Your task to perform on an android device: open app "Chime – Mobile Banking" (install if not already installed) Image 0: 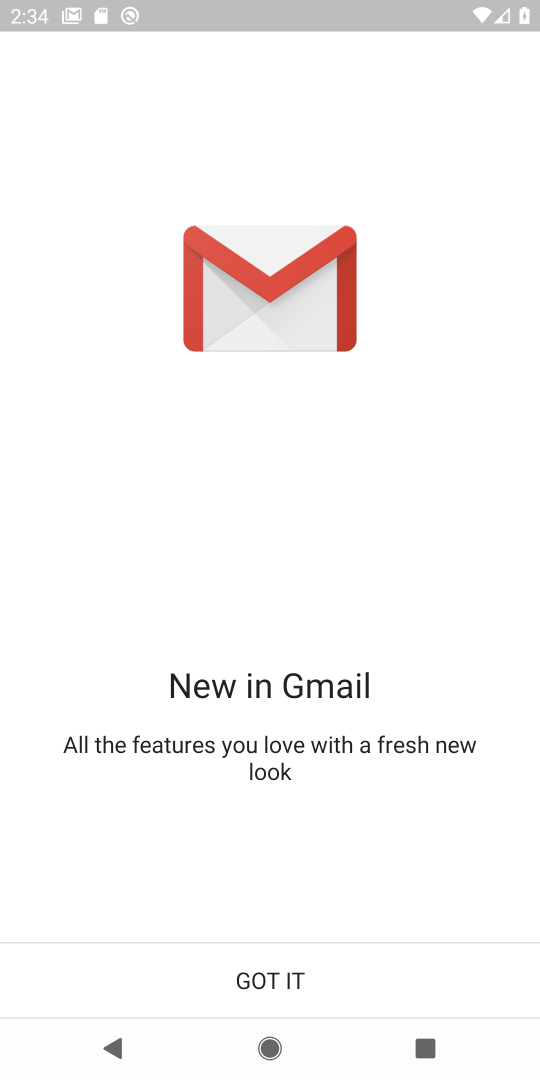
Step 0: press home button
Your task to perform on an android device: open app "Chime – Mobile Banking" (install if not already installed) Image 1: 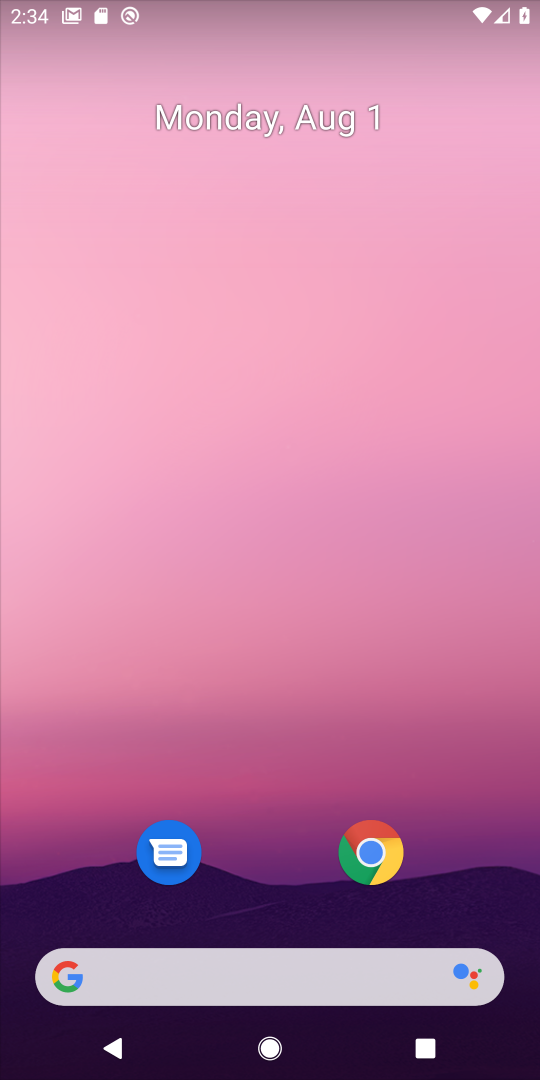
Step 1: drag from (261, 886) to (276, 3)
Your task to perform on an android device: open app "Chime – Mobile Banking" (install if not already installed) Image 2: 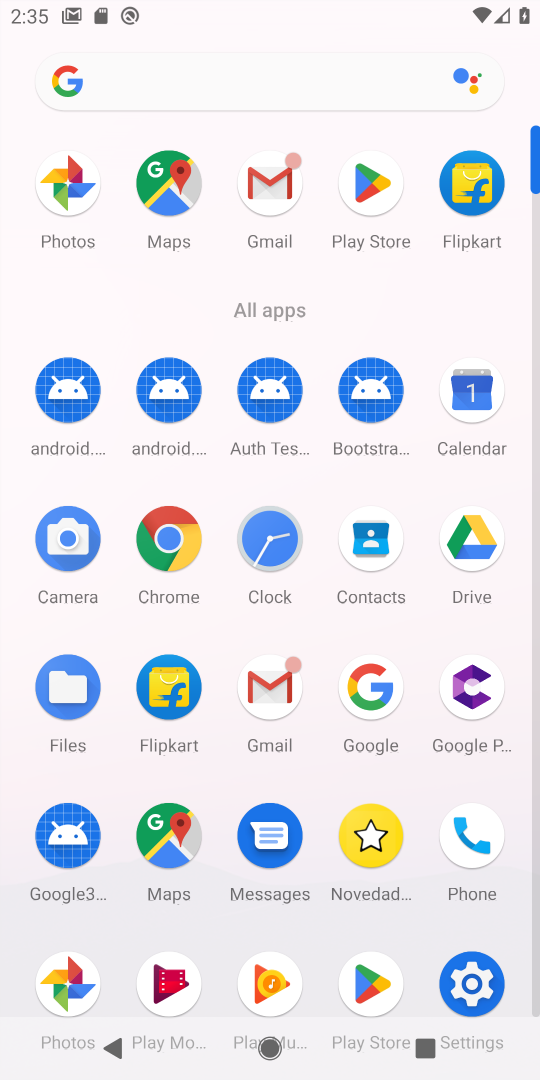
Step 2: click (361, 328)
Your task to perform on an android device: open app "Chime – Mobile Banking" (install if not already installed) Image 3: 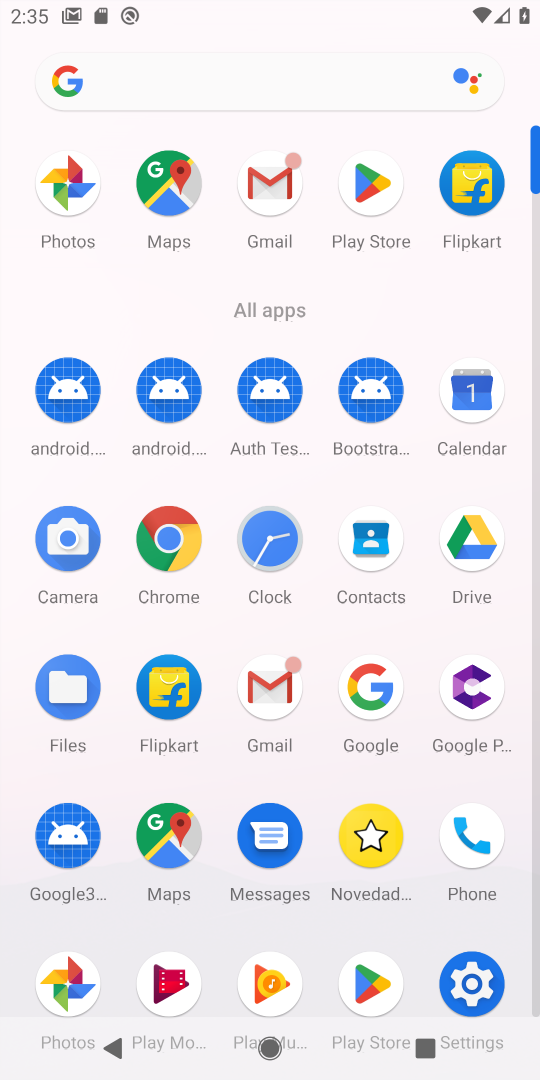
Step 3: click (361, 213)
Your task to perform on an android device: open app "Chime – Mobile Banking" (install if not already installed) Image 4: 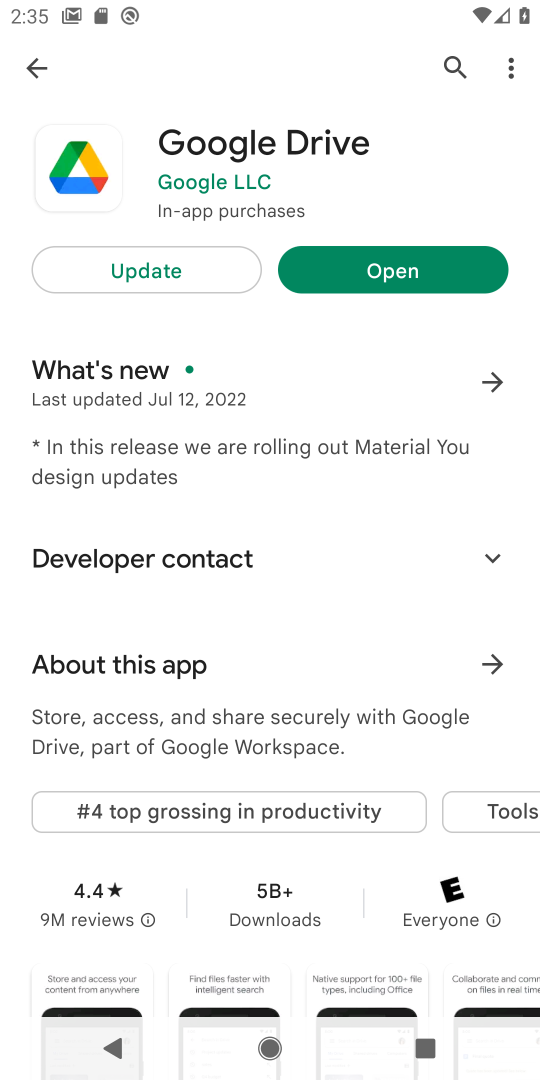
Step 4: click (452, 75)
Your task to perform on an android device: open app "Chime – Mobile Banking" (install if not already installed) Image 5: 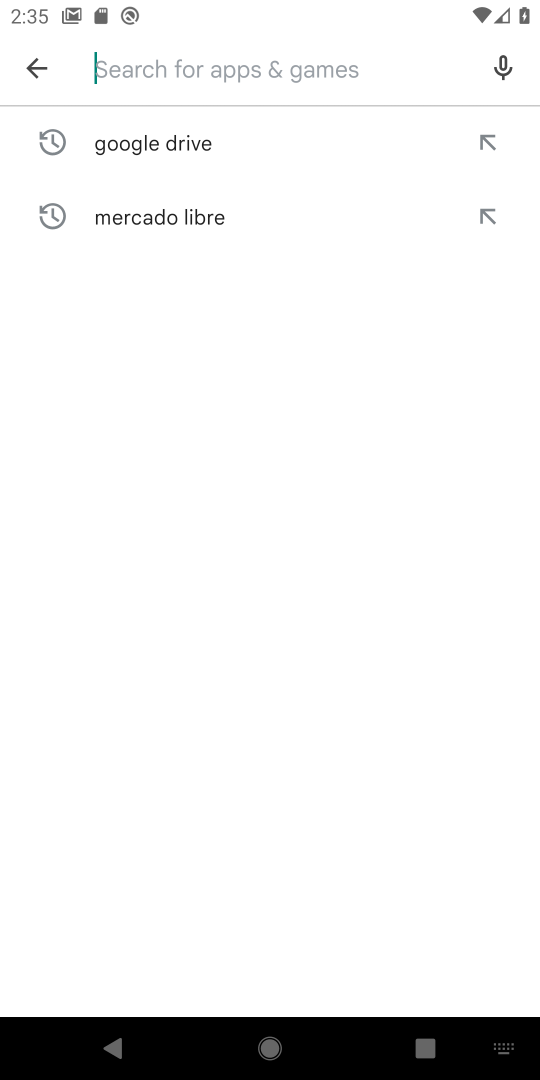
Step 5: type "chime - mobile banking"
Your task to perform on an android device: open app "Chime – Mobile Banking" (install if not already installed) Image 6: 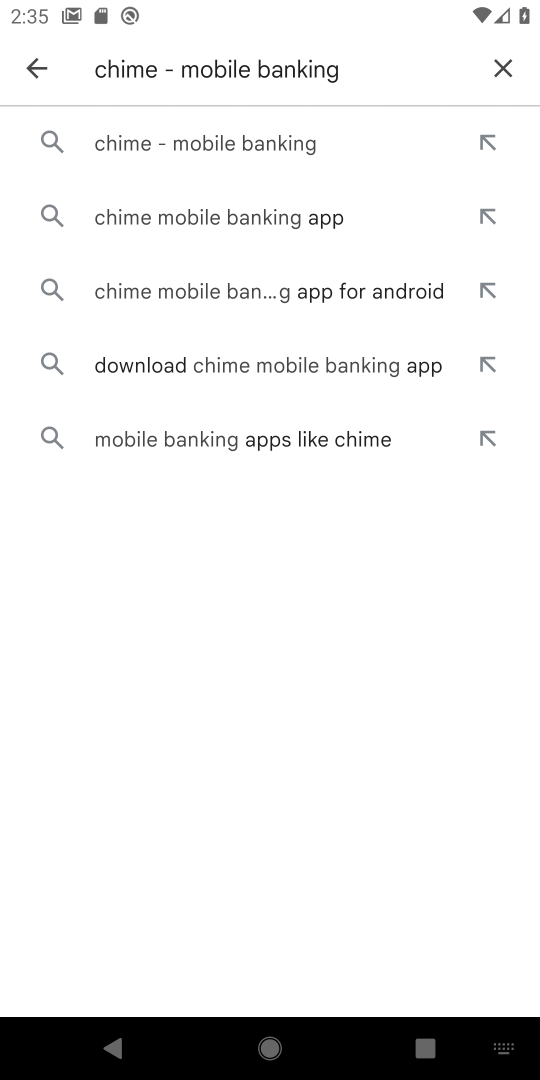
Step 6: click (328, 148)
Your task to perform on an android device: open app "Chime – Mobile Banking" (install if not already installed) Image 7: 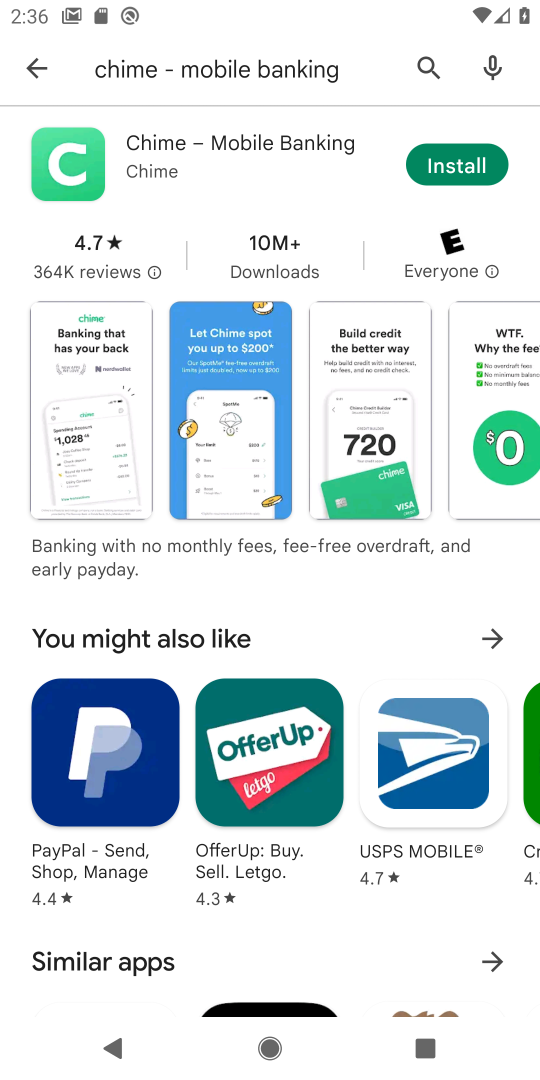
Step 7: click (260, 131)
Your task to perform on an android device: open app "Chime – Mobile Banking" (install if not already installed) Image 8: 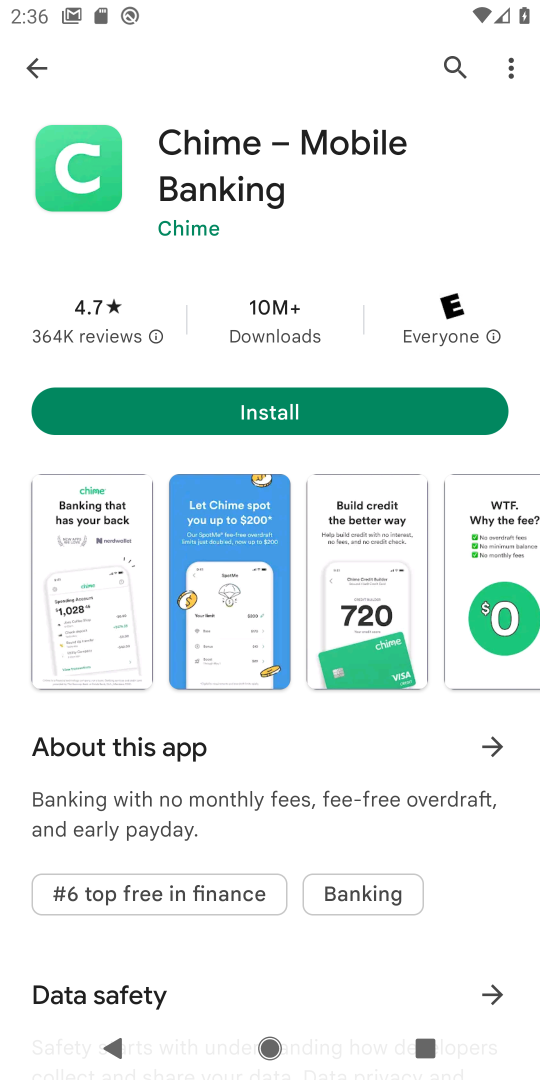
Step 8: click (314, 413)
Your task to perform on an android device: open app "Chime – Mobile Banking" (install if not already installed) Image 9: 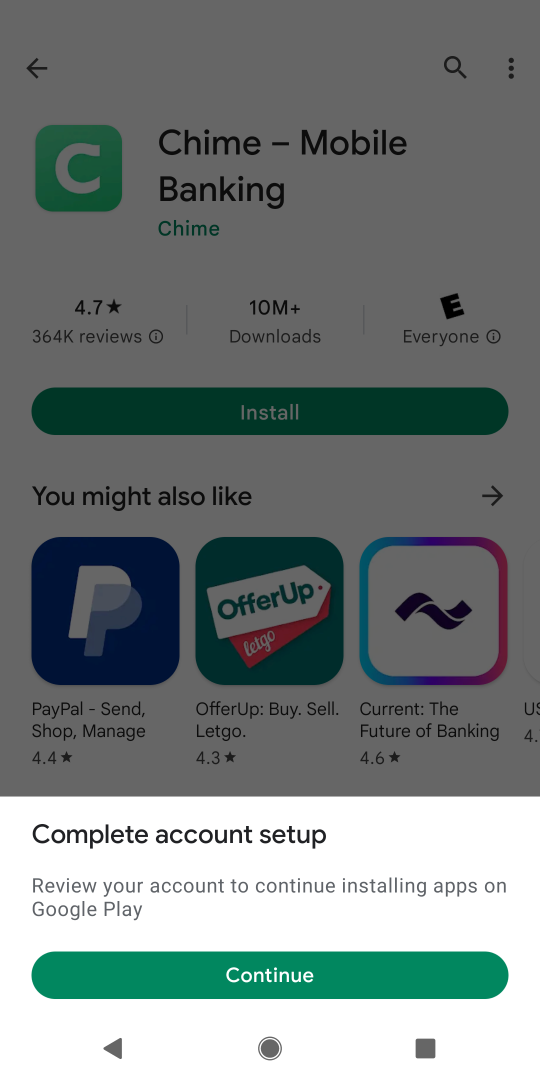
Step 9: click (296, 959)
Your task to perform on an android device: open app "Chime – Mobile Banking" (install if not already installed) Image 10: 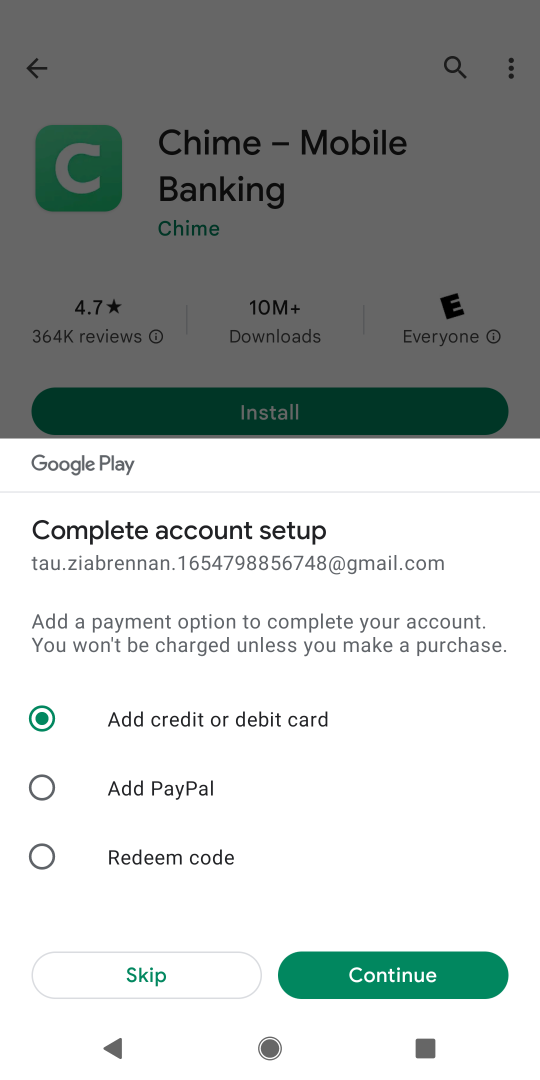
Step 10: click (139, 968)
Your task to perform on an android device: open app "Chime – Mobile Banking" (install if not already installed) Image 11: 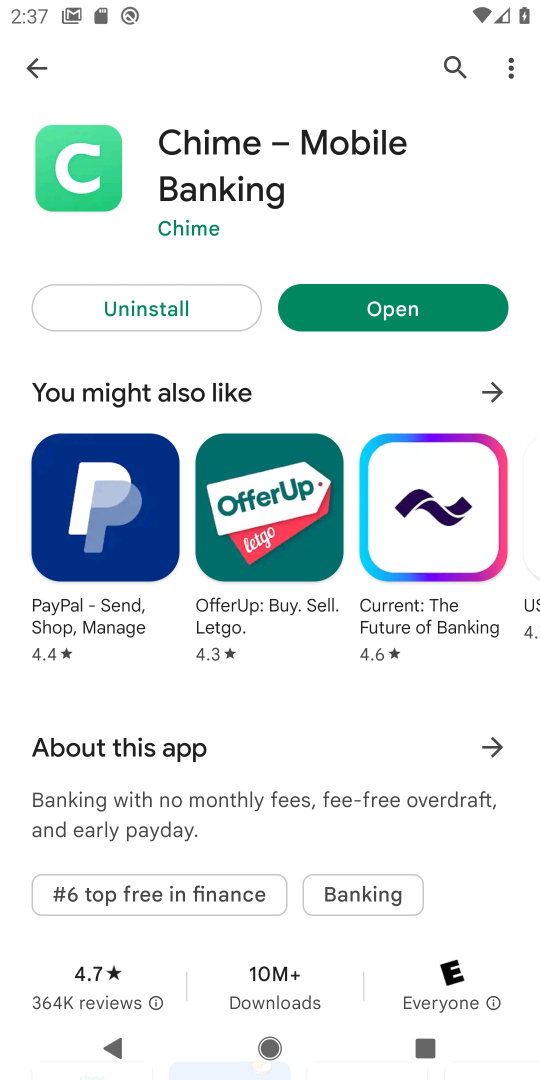
Step 11: click (410, 301)
Your task to perform on an android device: open app "Chime – Mobile Banking" (install if not already installed) Image 12: 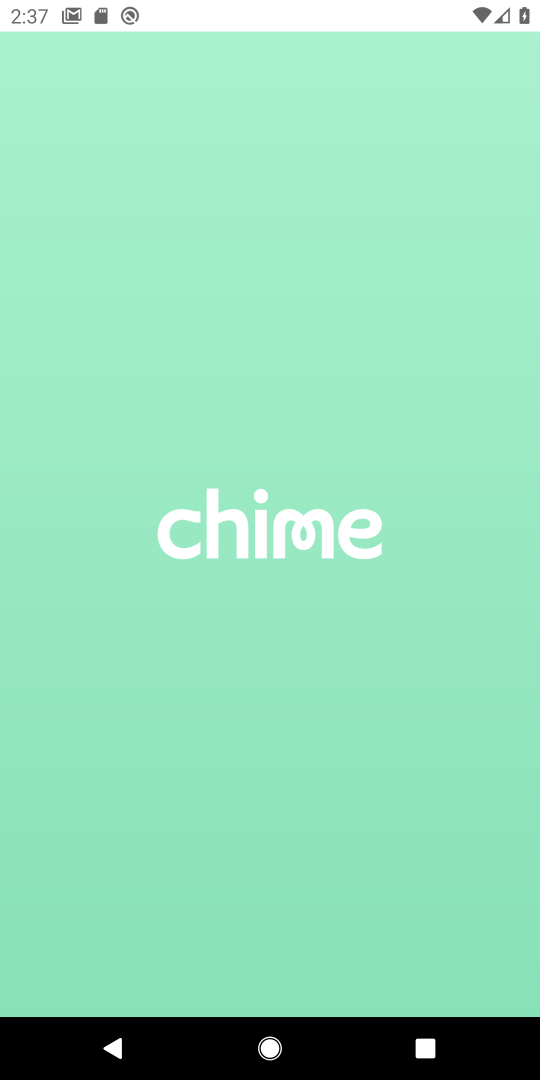
Step 12: task complete